Your task to perform on an android device: Open sound settings Image 0: 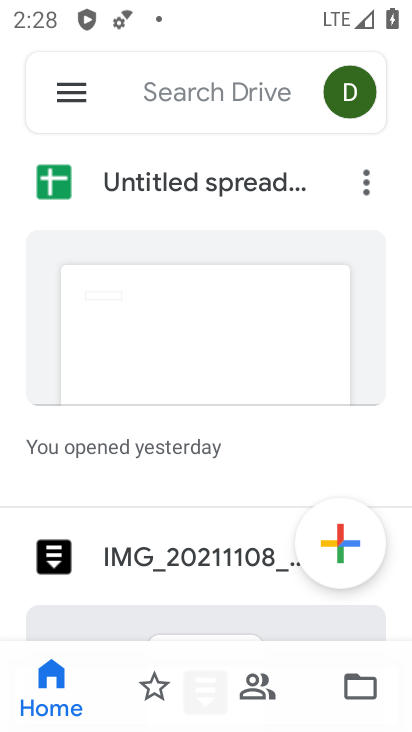
Step 0: press home button
Your task to perform on an android device: Open sound settings Image 1: 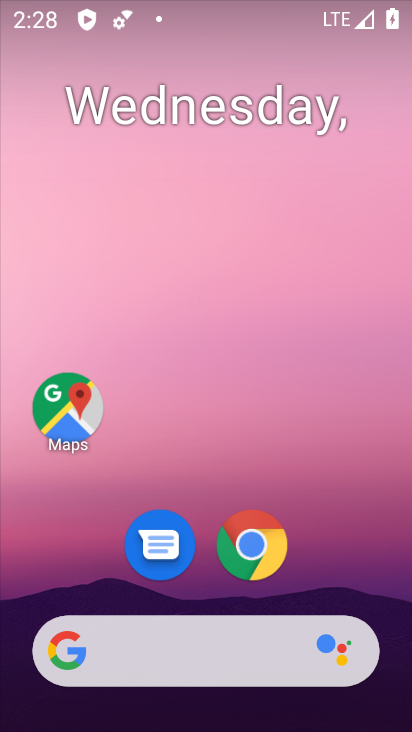
Step 1: drag from (197, 586) to (141, 49)
Your task to perform on an android device: Open sound settings Image 2: 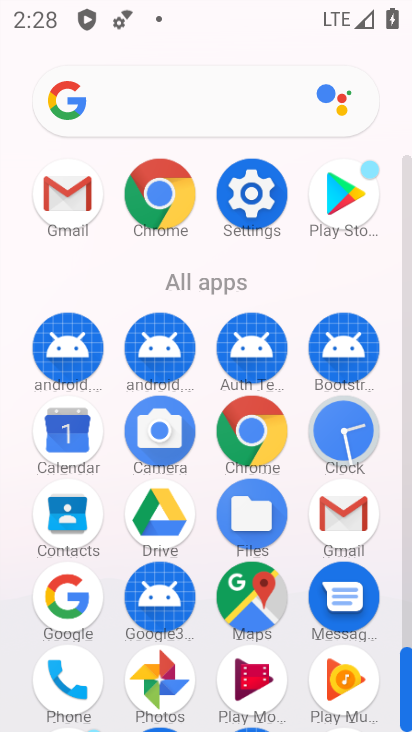
Step 2: click (256, 193)
Your task to perform on an android device: Open sound settings Image 3: 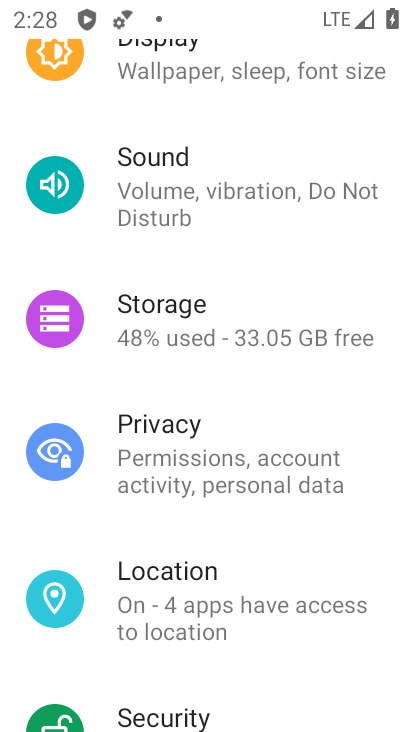
Step 3: click (156, 233)
Your task to perform on an android device: Open sound settings Image 4: 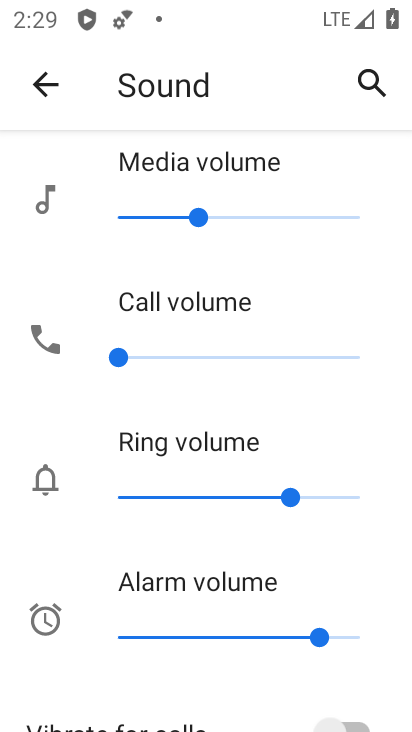
Step 4: task complete